Your task to perform on an android device: turn smart compose on in the gmail app Image 0: 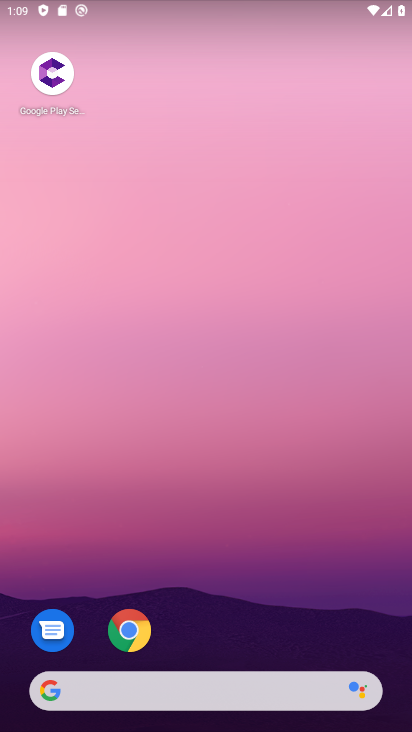
Step 0: task complete